Your task to perform on an android device: Open Yahoo.com Image 0: 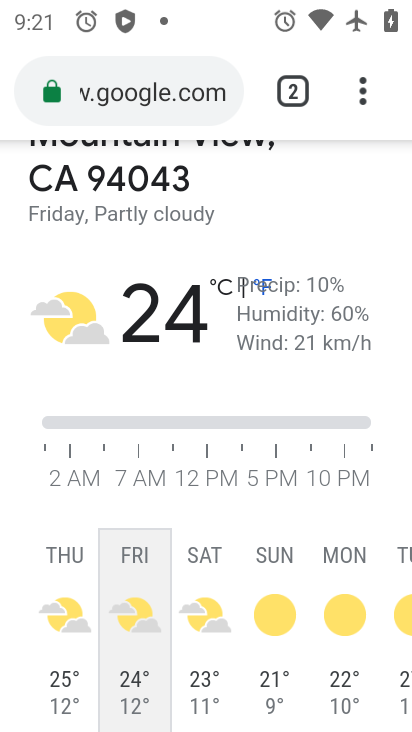
Step 0: click (149, 86)
Your task to perform on an android device: Open Yahoo.com Image 1: 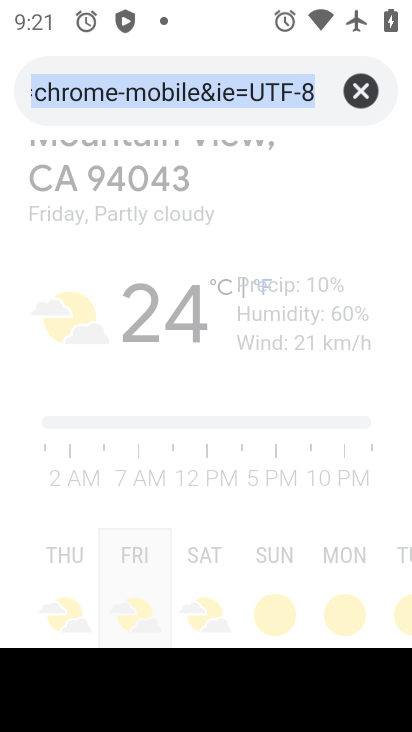
Step 1: click (362, 92)
Your task to perform on an android device: Open Yahoo.com Image 2: 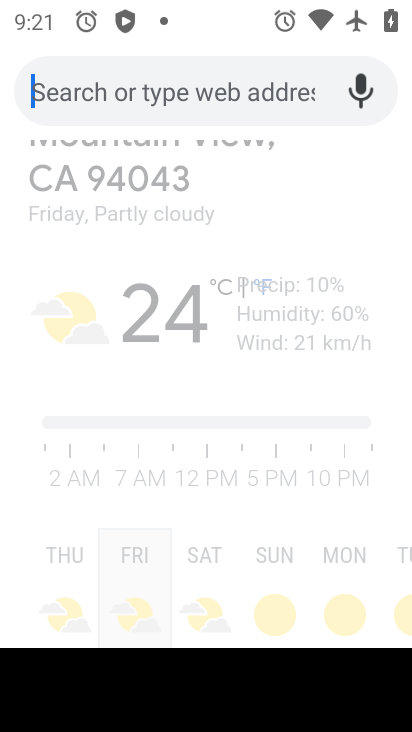
Step 2: type "Yahoo.com"
Your task to perform on an android device: Open Yahoo.com Image 3: 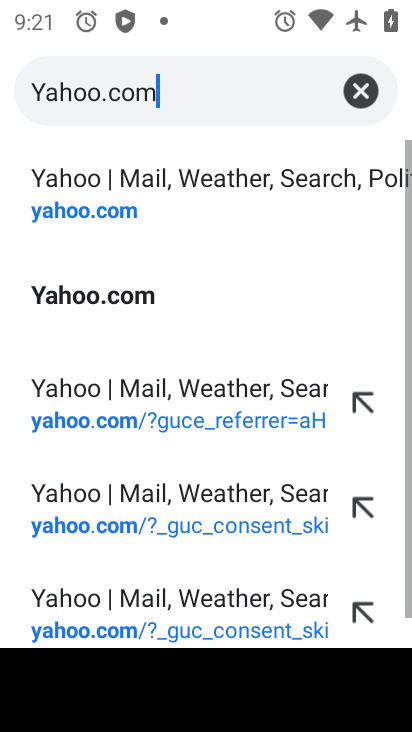
Step 3: type ""
Your task to perform on an android device: Open Yahoo.com Image 4: 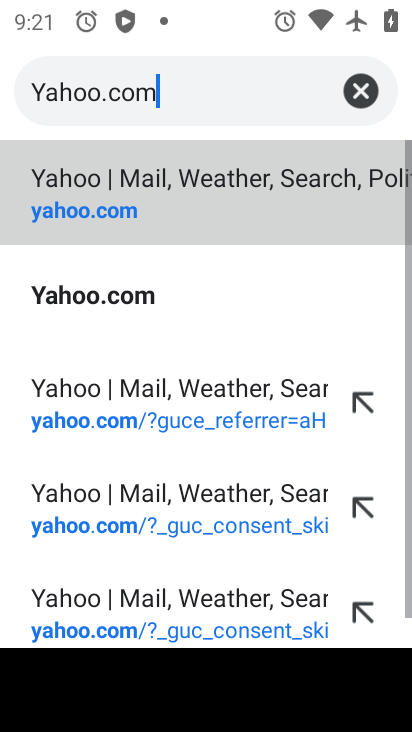
Step 4: click (183, 196)
Your task to perform on an android device: Open Yahoo.com Image 5: 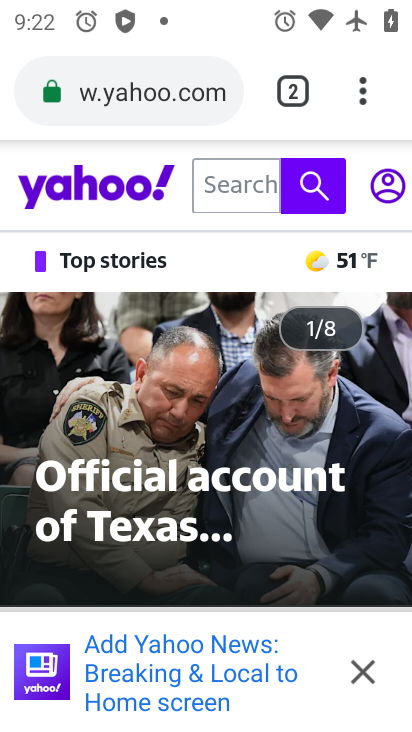
Step 5: task complete